Your task to perform on an android device: toggle show notifications on the lock screen Image 0: 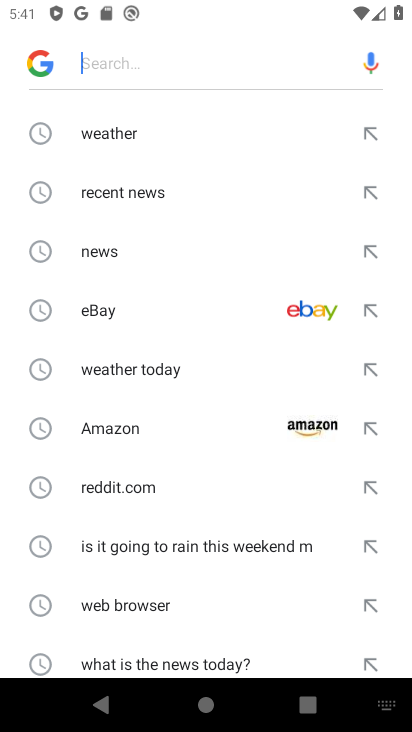
Step 0: press home button
Your task to perform on an android device: toggle show notifications on the lock screen Image 1: 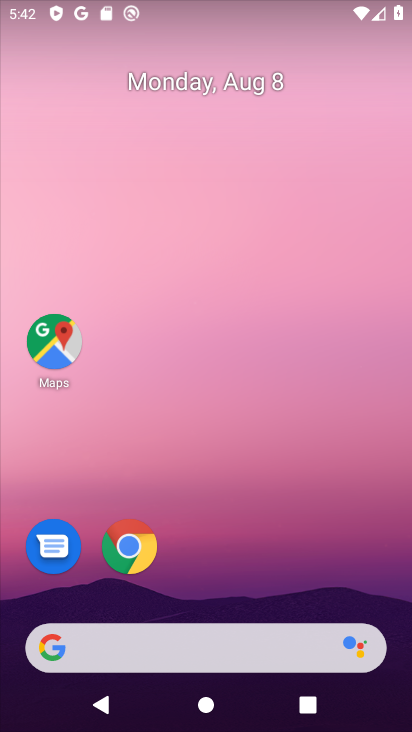
Step 1: drag from (210, 578) to (213, 140)
Your task to perform on an android device: toggle show notifications on the lock screen Image 2: 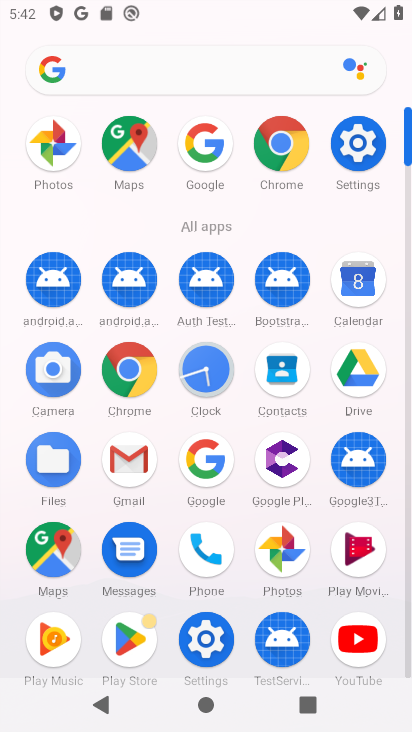
Step 2: click (369, 142)
Your task to perform on an android device: toggle show notifications on the lock screen Image 3: 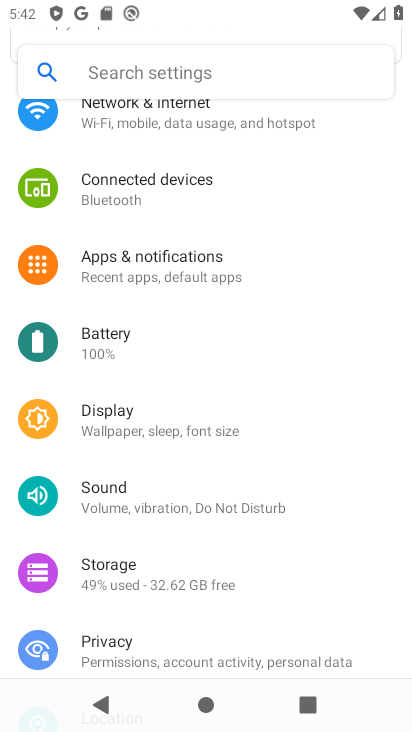
Step 3: drag from (178, 254) to (211, 527)
Your task to perform on an android device: toggle show notifications on the lock screen Image 4: 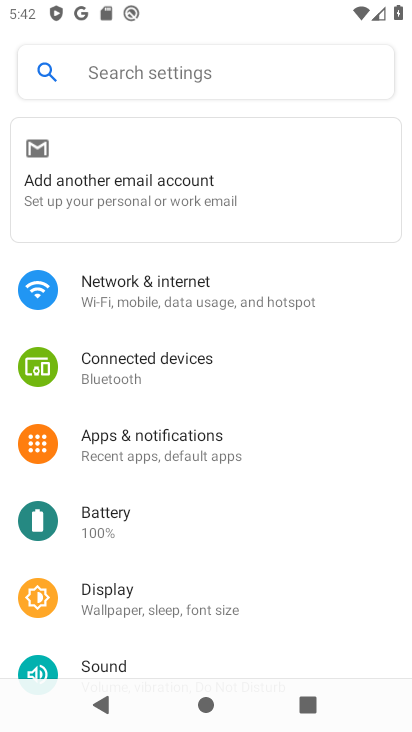
Step 4: click (222, 441)
Your task to perform on an android device: toggle show notifications on the lock screen Image 5: 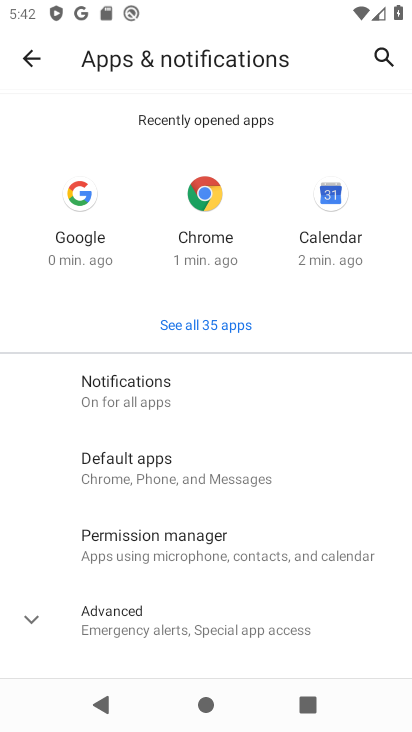
Step 5: click (160, 406)
Your task to perform on an android device: toggle show notifications on the lock screen Image 6: 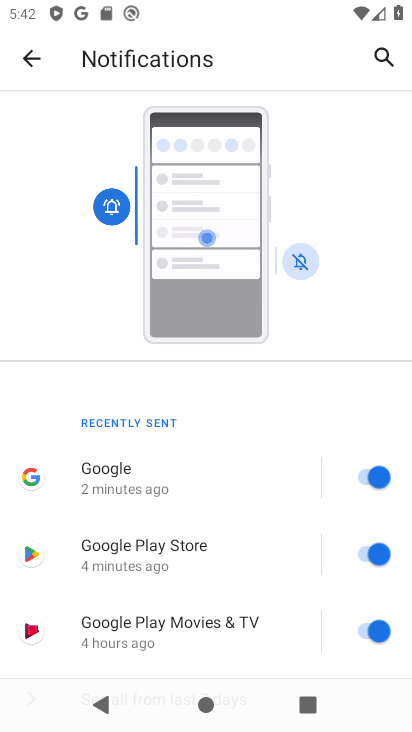
Step 6: drag from (251, 609) to (289, 179)
Your task to perform on an android device: toggle show notifications on the lock screen Image 7: 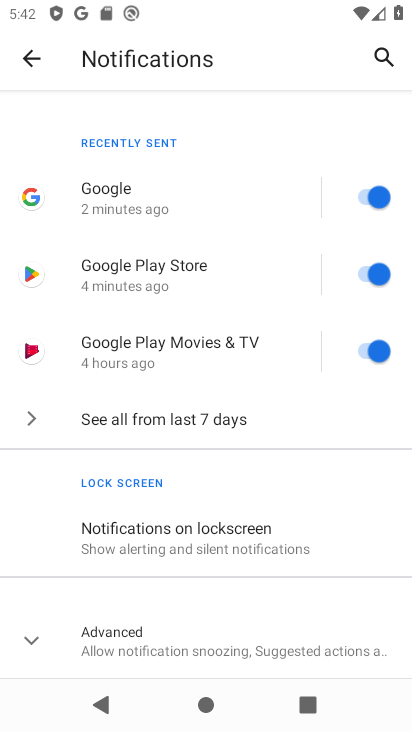
Step 7: click (266, 533)
Your task to perform on an android device: toggle show notifications on the lock screen Image 8: 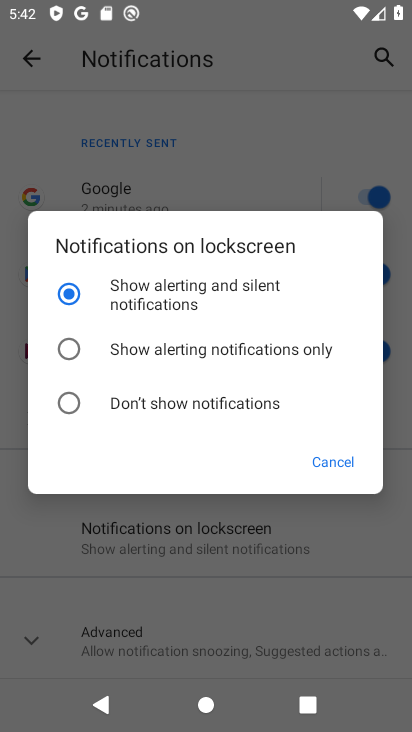
Step 8: click (220, 404)
Your task to perform on an android device: toggle show notifications on the lock screen Image 9: 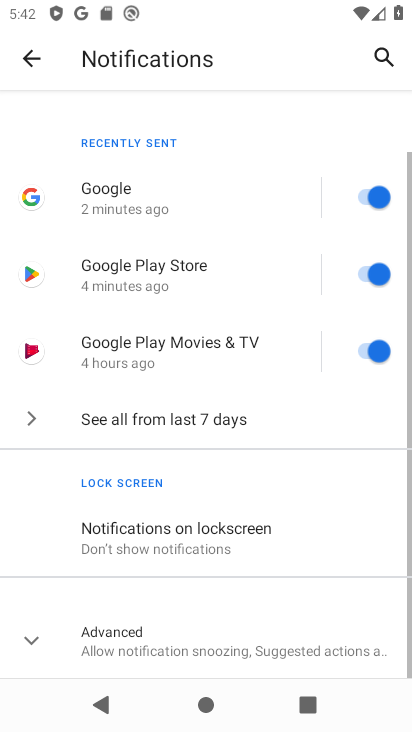
Step 9: task complete